Your task to perform on an android device: Turn off the flashlight Image 0: 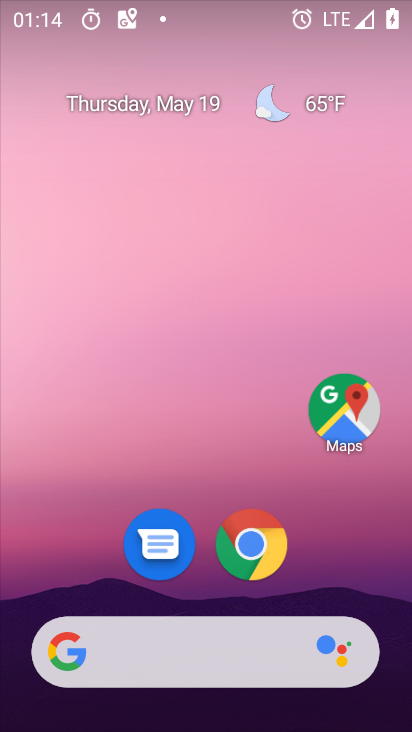
Step 0: drag from (238, 0) to (217, 462)
Your task to perform on an android device: Turn off the flashlight Image 1: 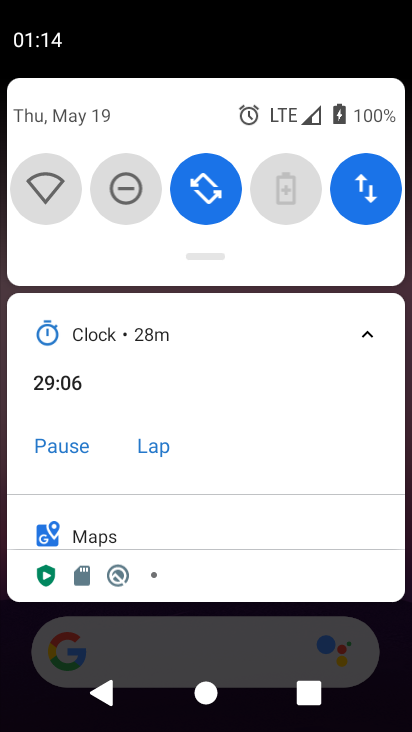
Step 1: drag from (217, 143) to (213, 456)
Your task to perform on an android device: Turn off the flashlight Image 2: 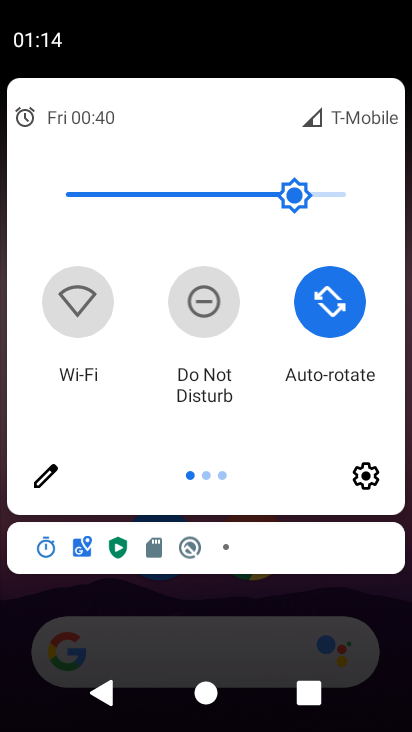
Step 2: click (34, 478)
Your task to perform on an android device: Turn off the flashlight Image 3: 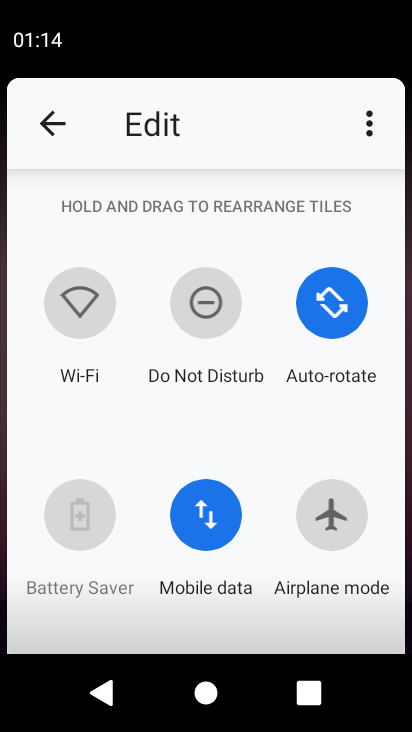
Step 3: task complete